Your task to perform on an android device: Open the calendar app, open the side menu, and click the "Day" option Image 0: 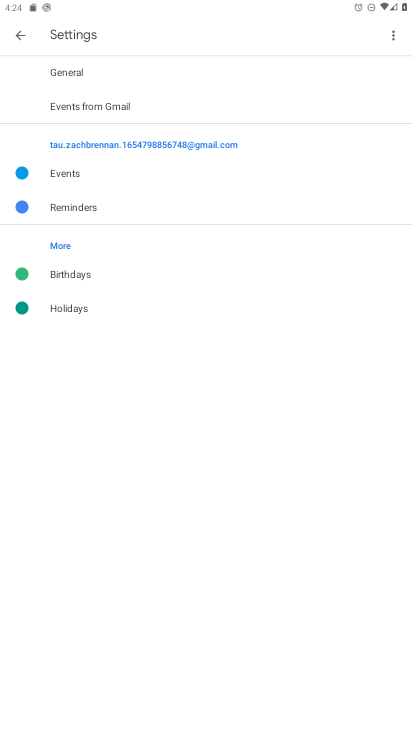
Step 0: press home button
Your task to perform on an android device: Open the calendar app, open the side menu, and click the "Day" option Image 1: 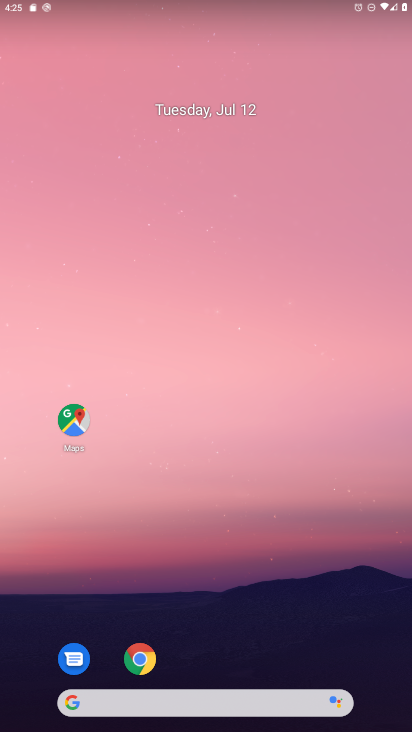
Step 1: drag from (256, 266) to (201, 201)
Your task to perform on an android device: Open the calendar app, open the side menu, and click the "Day" option Image 2: 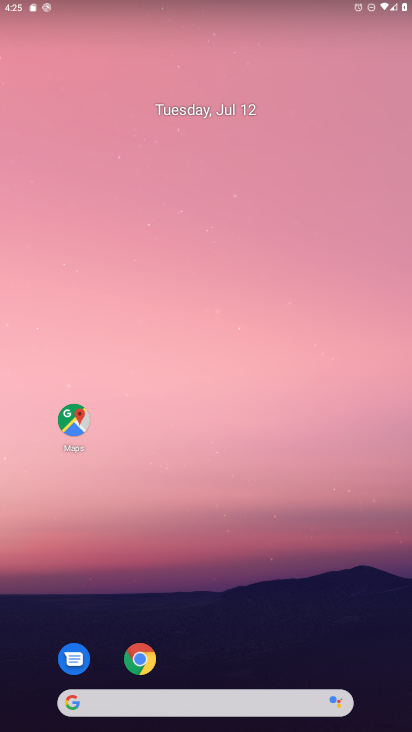
Step 2: drag from (216, 458) to (243, 112)
Your task to perform on an android device: Open the calendar app, open the side menu, and click the "Day" option Image 3: 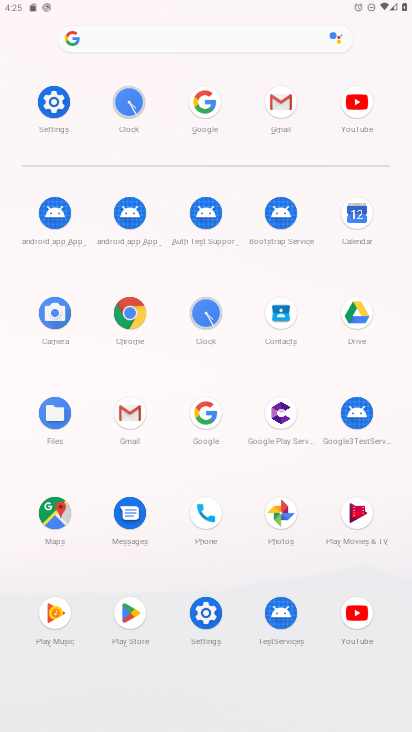
Step 3: click (357, 226)
Your task to perform on an android device: Open the calendar app, open the side menu, and click the "Day" option Image 4: 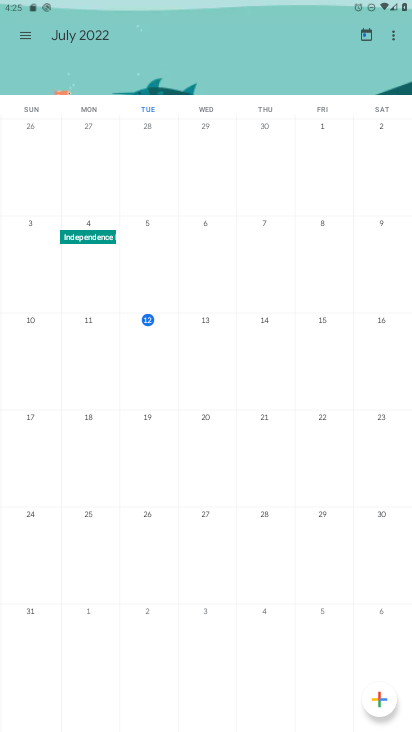
Step 4: click (24, 35)
Your task to perform on an android device: Open the calendar app, open the side menu, and click the "Day" option Image 5: 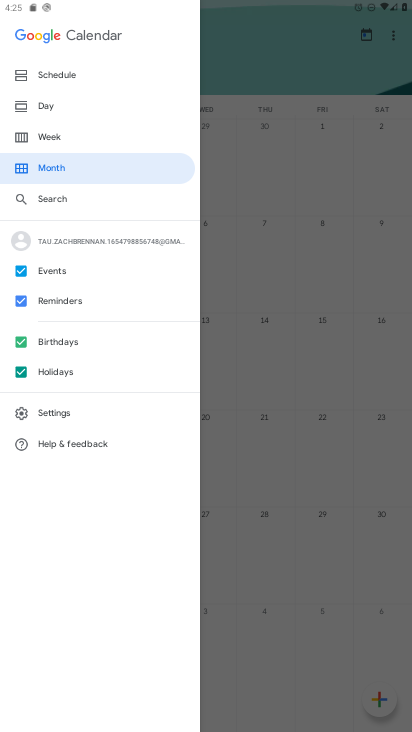
Step 5: click (41, 105)
Your task to perform on an android device: Open the calendar app, open the side menu, and click the "Day" option Image 6: 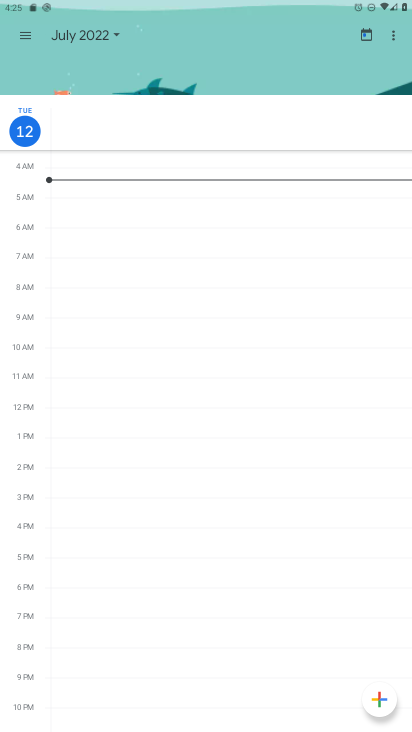
Step 6: task complete